Your task to perform on an android device: Open Chrome and go to settings Image 0: 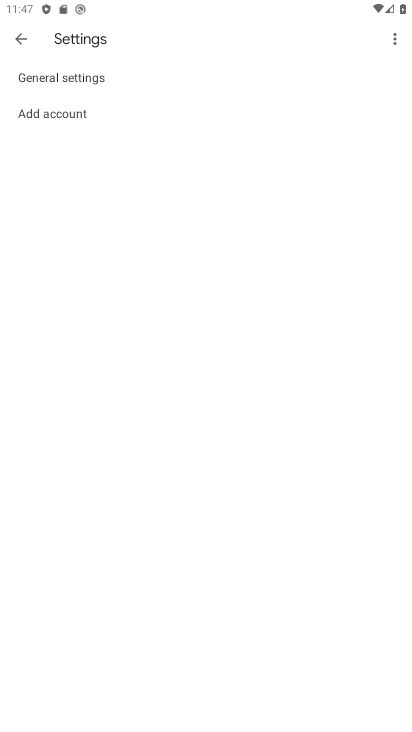
Step 0: task complete